Your task to perform on an android device: check battery use Image 0: 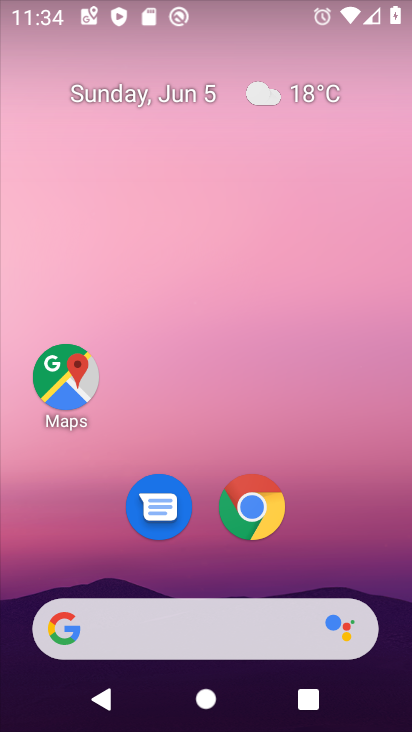
Step 0: drag from (242, 723) to (243, 129)
Your task to perform on an android device: check battery use Image 1: 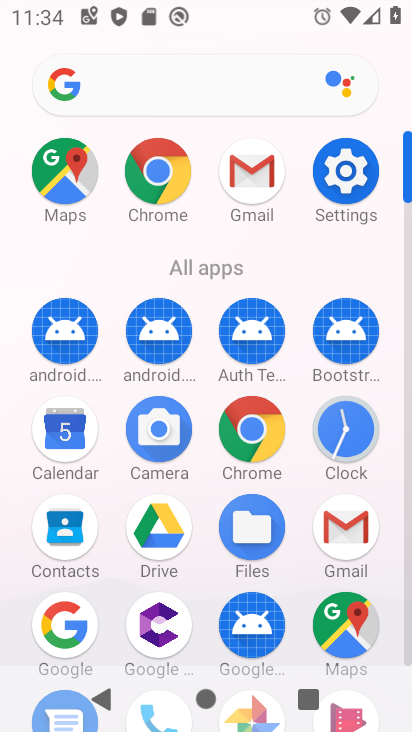
Step 1: click (355, 171)
Your task to perform on an android device: check battery use Image 2: 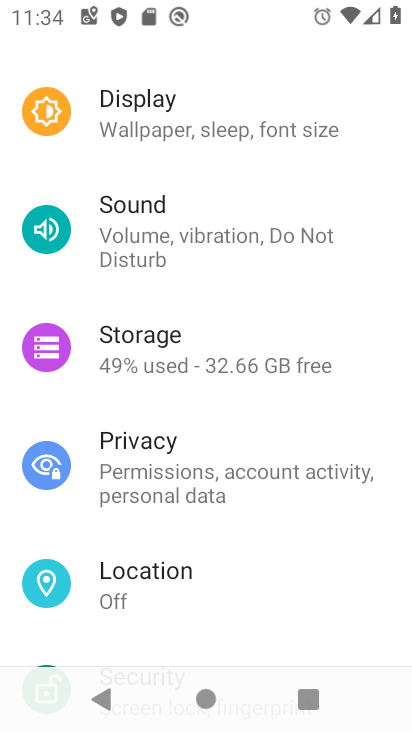
Step 2: drag from (168, 614) to (138, 250)
Your task to perform on an android device: check battery use Image 3: 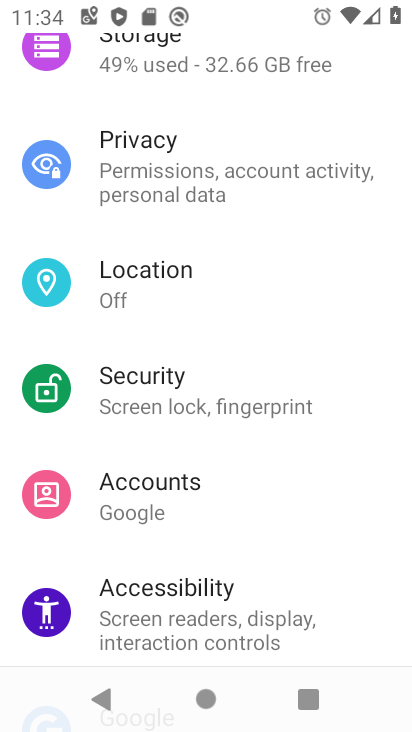
Step 3: drag from (264, 112) to (264, 522)
Your task to perform on an android device: check battery use Image 4: 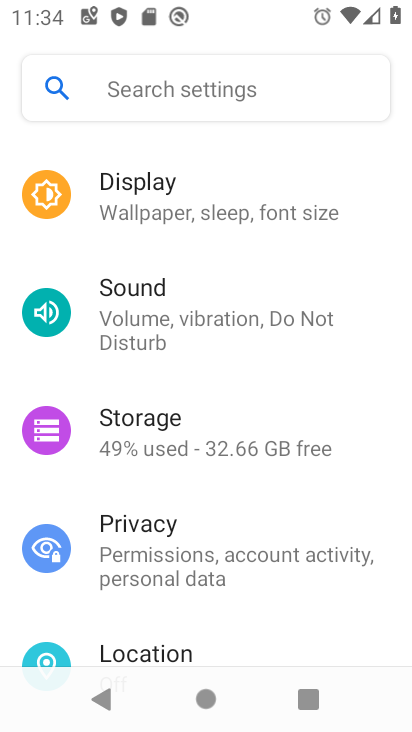
Step 4: drag from (238, 162) to (254, 553)
Your task to perform on an android device: check battery use Image 5: 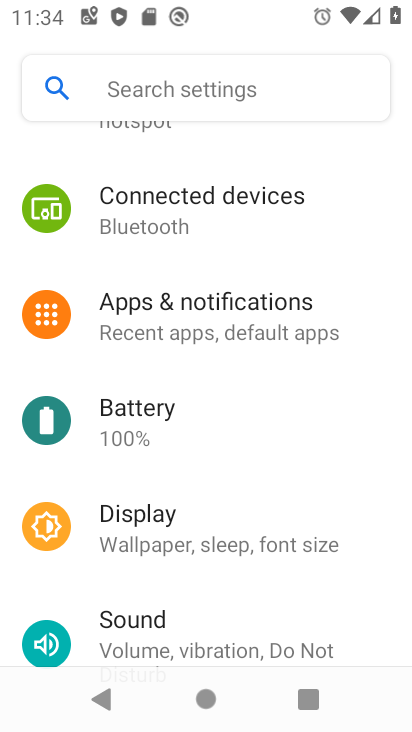
Step 5: click (115, 381)
Your task to perform on an android device: check battery use Image 6: 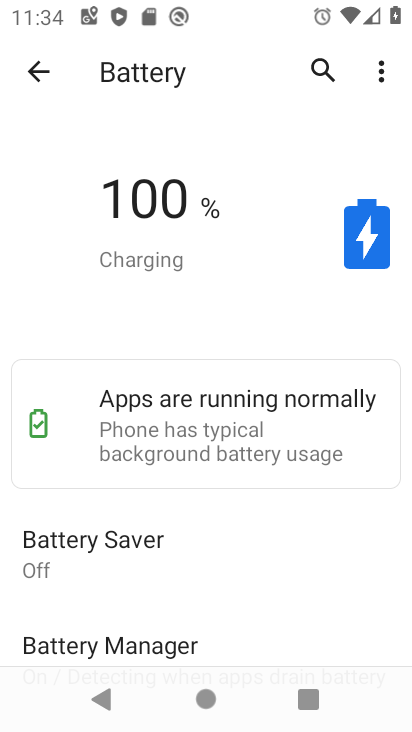
Step 6: click (379, 77)
Your task to perform on an android device: check battery use Image 7: 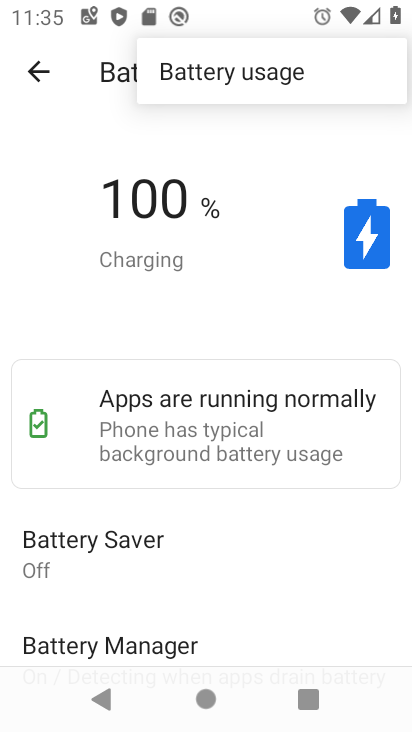
Step 7: click (289, 68)
Your task to perform on an android device: check battery use Image 8: 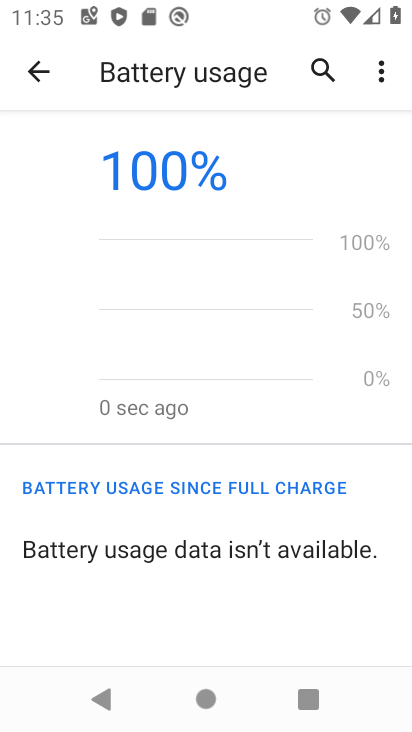
Step 8: task complete